Your task to perform on an android device: uninstall "Grab" Image 0: 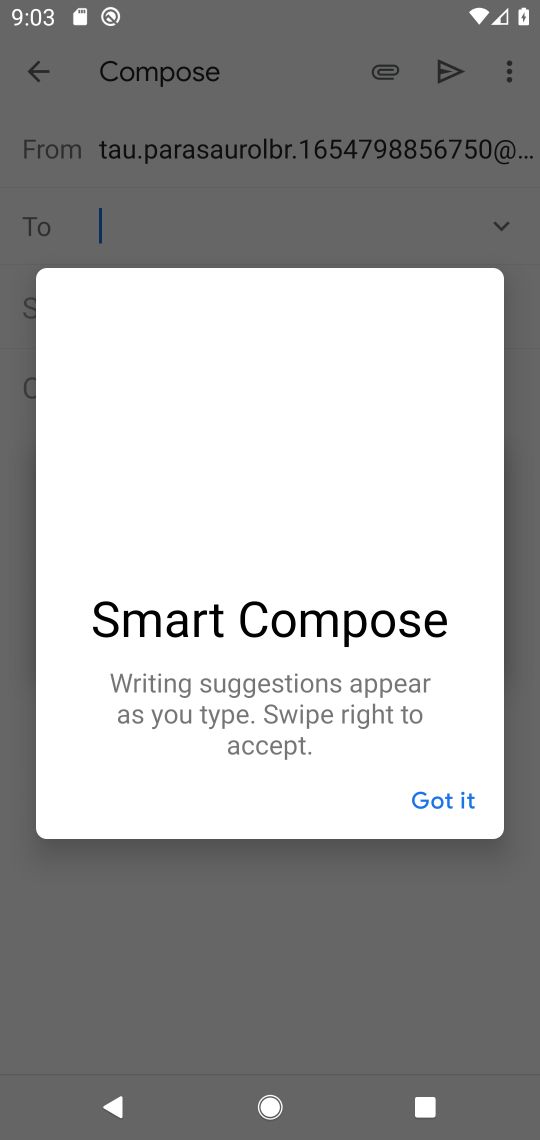
Step 0: press home button
Your task to perform on an android device: uninstall "Grab" Image 1: 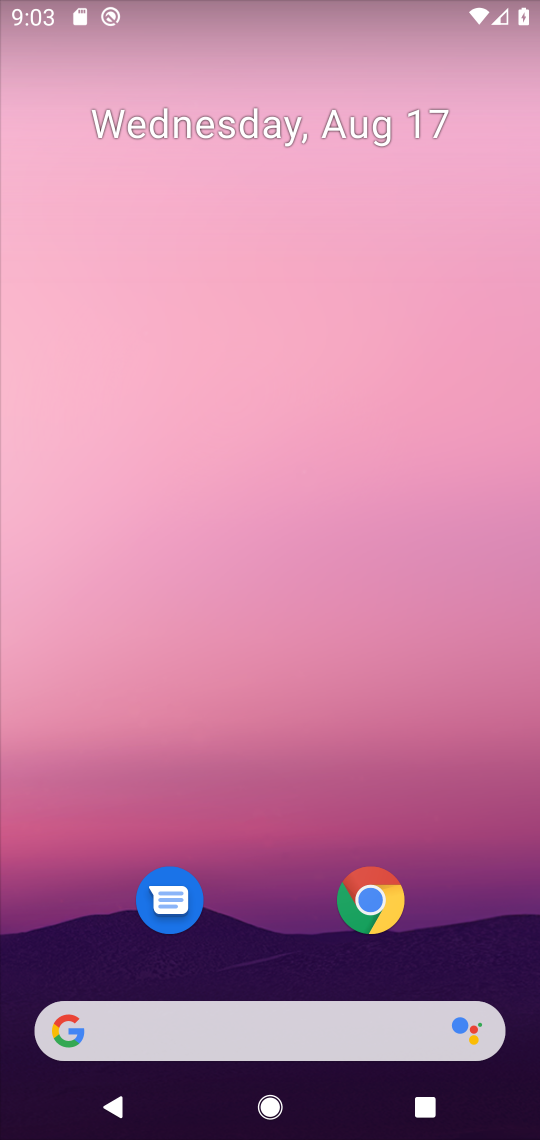
Step 1: drag from (276, 970) to (378, 273)
Your task to perform on an android device: uninstall "Grab" Image 2: 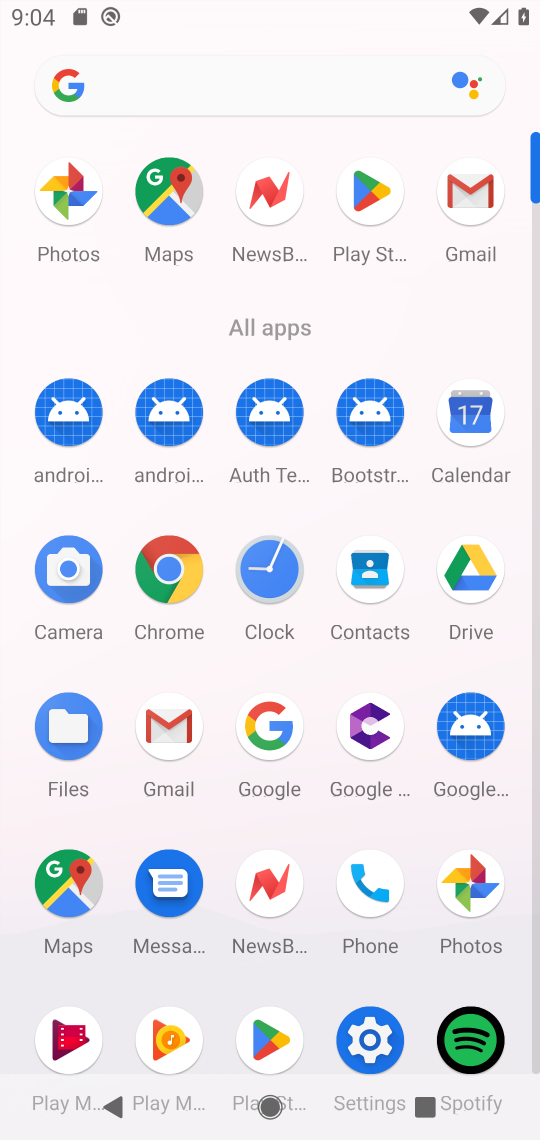
Step 2: click (365, 218)
Your task to perform on an android device: uninstall "Grab" Image 3: 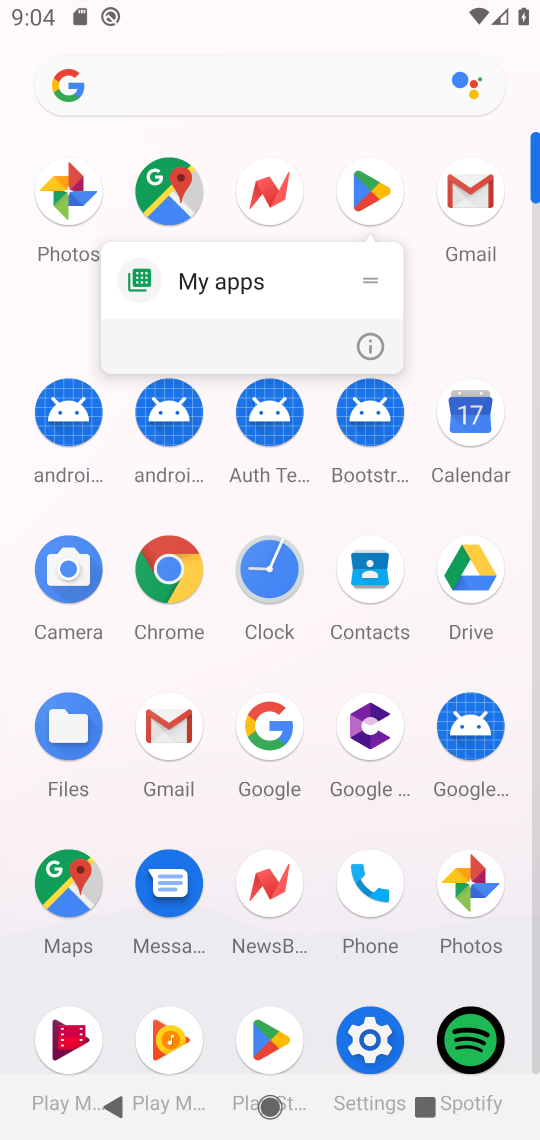
Step 3: click (388, 181)
Your task to perform on an android device: uninstall "Grab" Image 4: 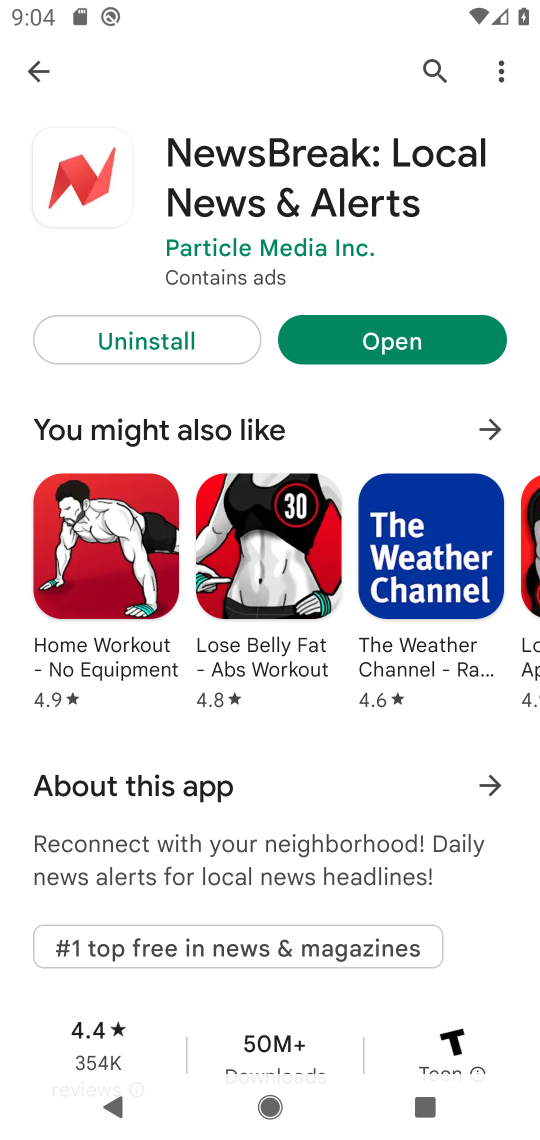
Step 4: click (30, 68)
Your task to perform on an android device: uninstall "Grab" Image 5: 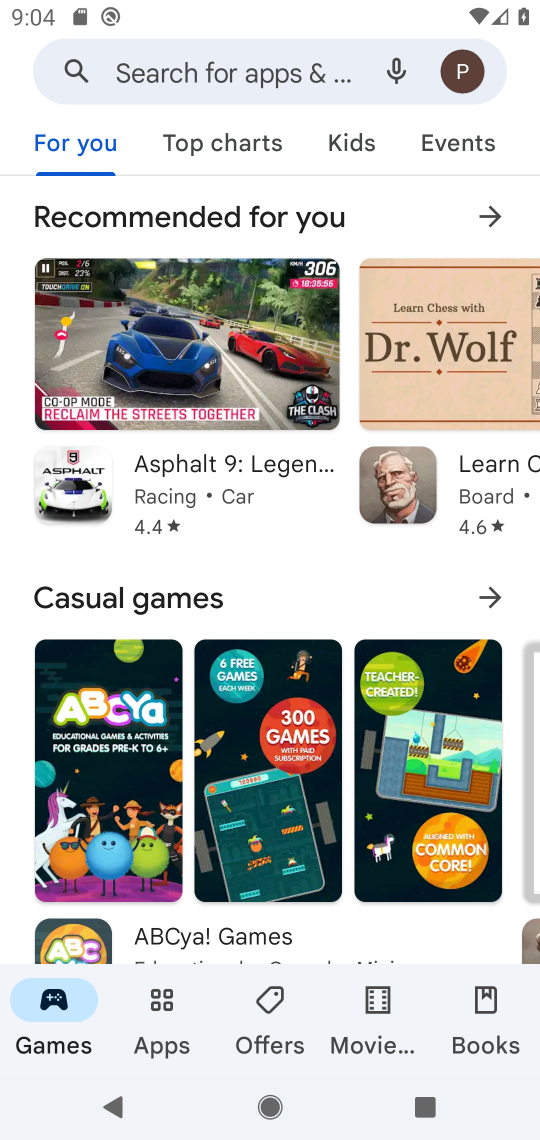
Step 5: click (149, 89)
Your task to perform on an android device: uninstall "Grab" Image 6: 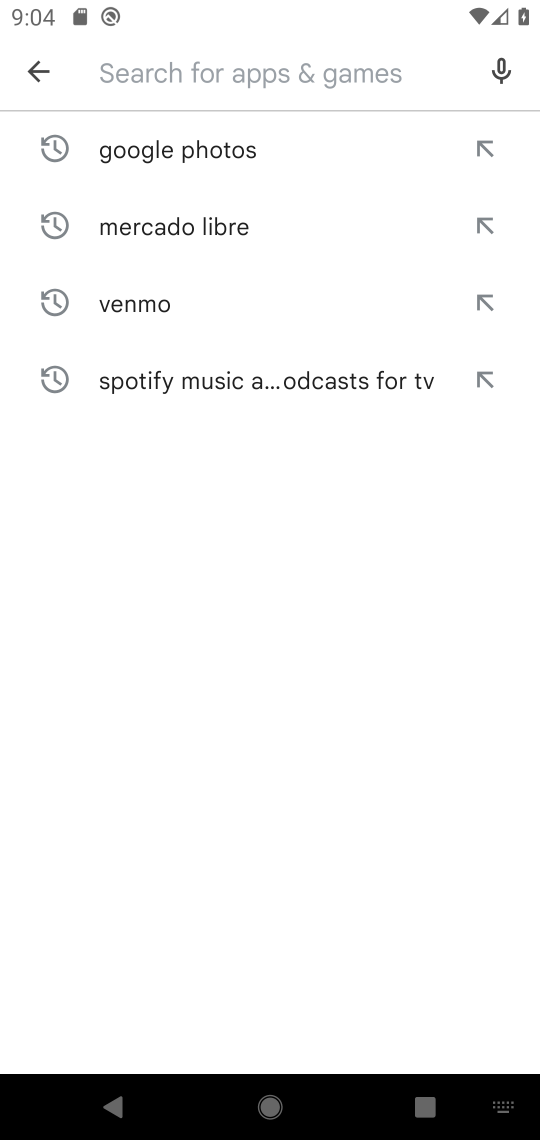
Step 6: type "Grab"
Your task to perform on an android device: uninstall "Grab" Image 7: 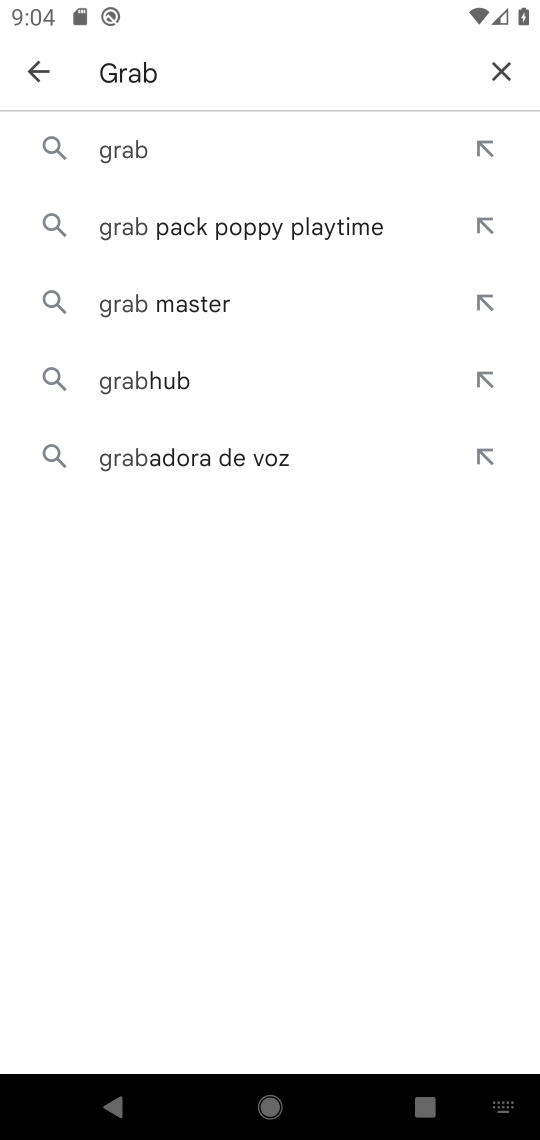
Step 7: click (207, 147)
Your task to perform on an android device: uninstall "Grab" Image 8: 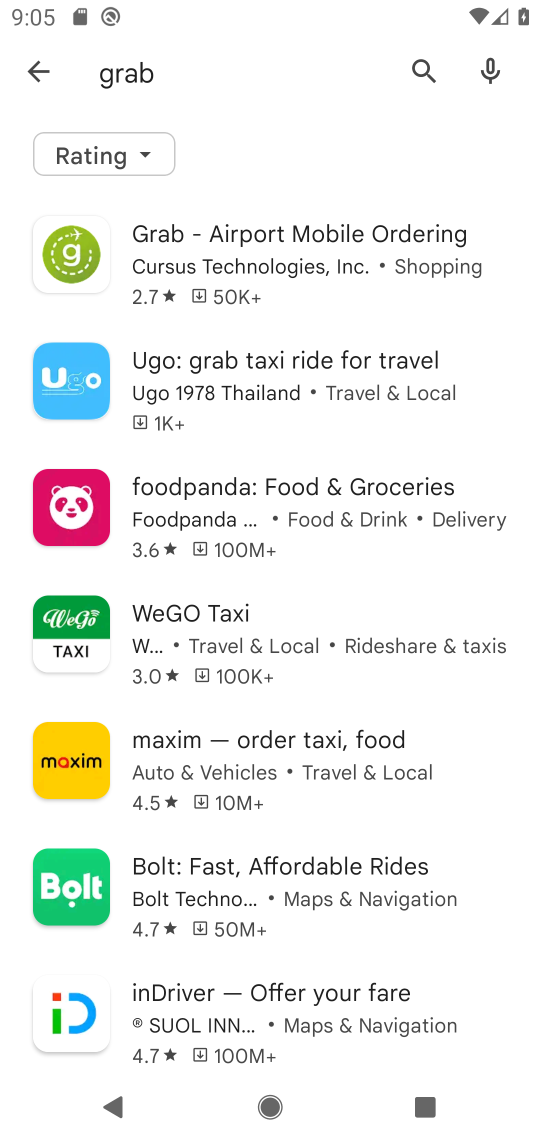
Step 8: click (343, 275)
Your task to perform on an android device: uninstall "Grab" Image 9: 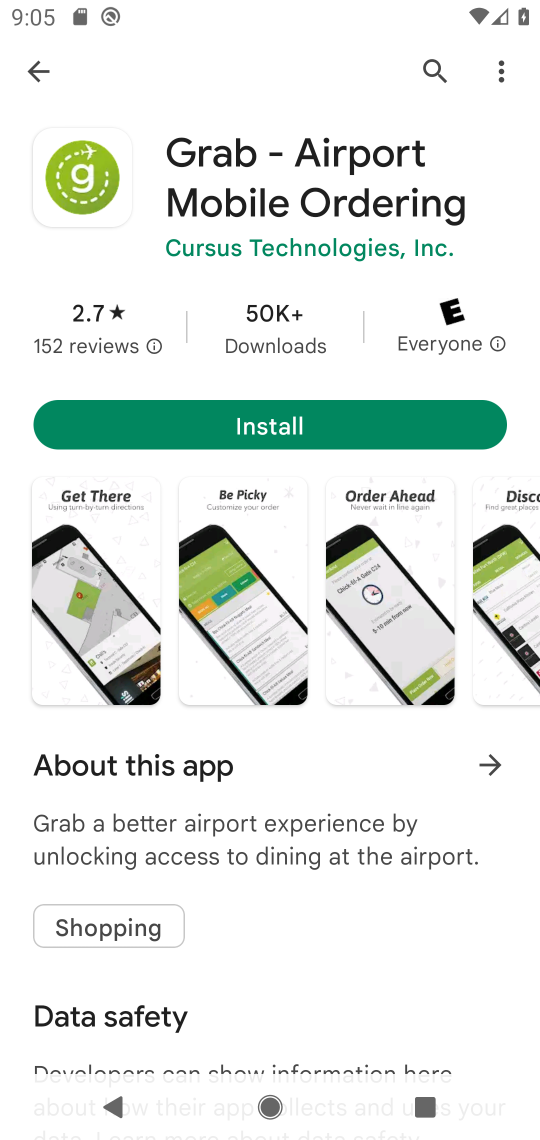
Step 9: task complete